Your task to perform on an android device: turn on priority inbox in the gmail app Image 0: 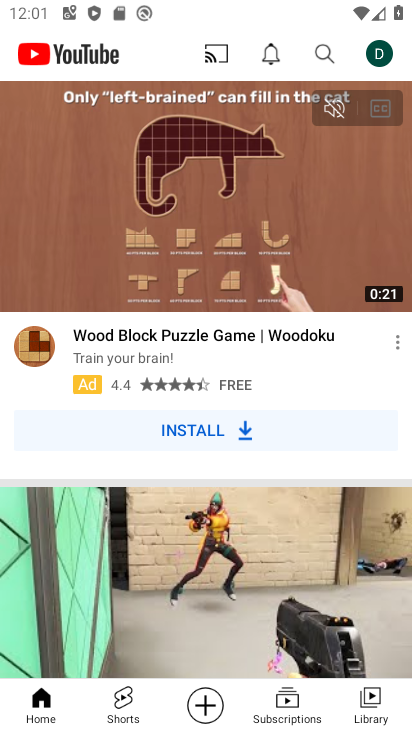
Step 0: press home button
Your task to perform on an android device: turn on priority inbox in the gmail app Image 1: 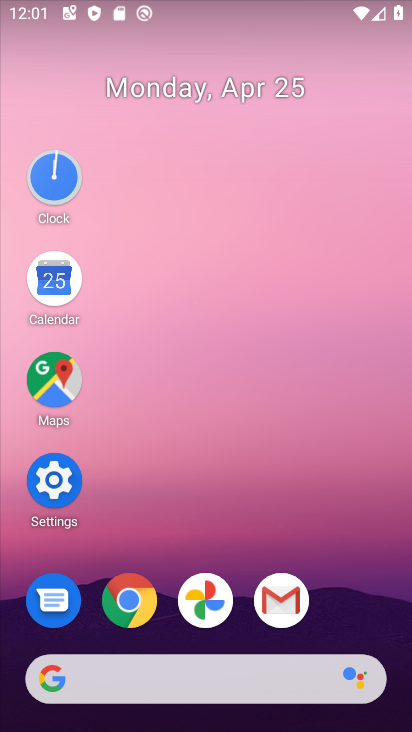
Step 1: click (266, 602)
Your task to perform on an android device: turn on priority inbox in the gmail app Image 2: 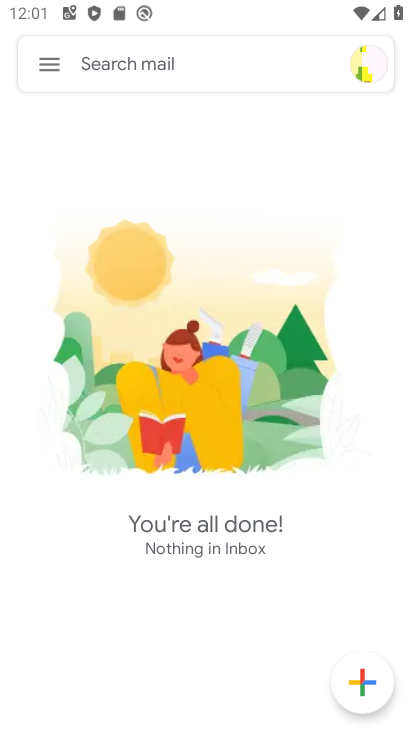
Step 2: click (49, 65)
Your task to perform on an android device: turn on priority inbox in the gmail app Image 3: 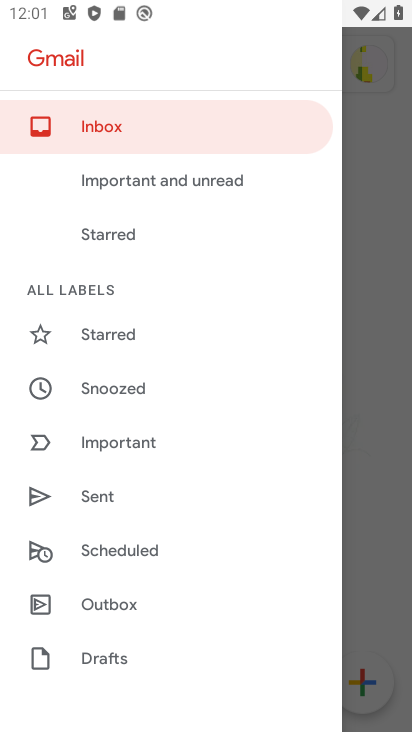
Step 3: drag from (167, 607) to (151, 280)
Your task to perform on an android device: turn on priority inbox in the gmail app Image 4: 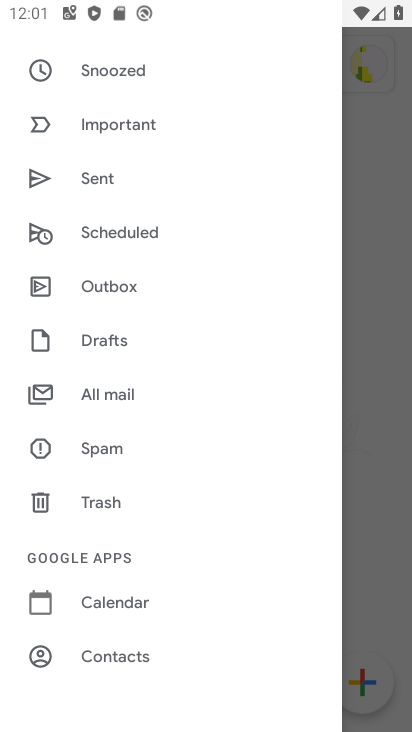
Step 4: drag from (223, 573) to (189, 309)
Your task to perform on an android device: turn on priority inbox in the gmail app Image 5: 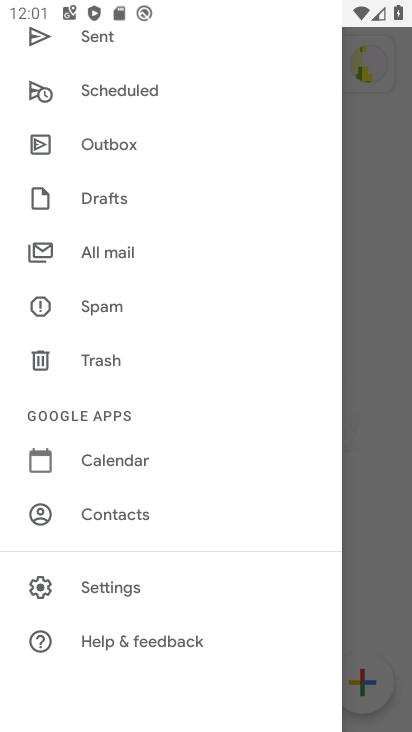
Step 5: click (109, 586)
Your task to perform on an android device: turn on priority inbox in the gmail app Image 6: 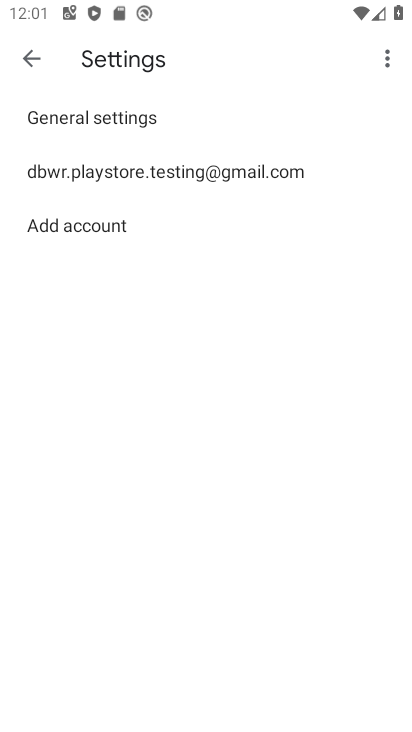
Step 6: click (95, 180)
Your task to perform on an android device: turn on priority inbox in the gmail app Image 7: 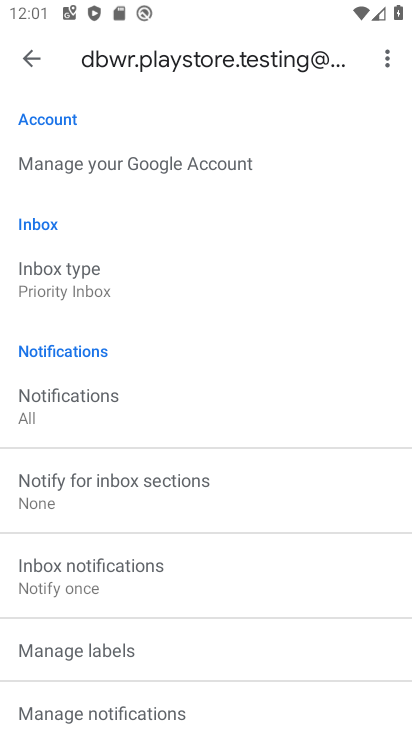
Step 7: click (67, 266)
Your task to perform on an android device: turn on priority inbox in the gmail app Image 8: 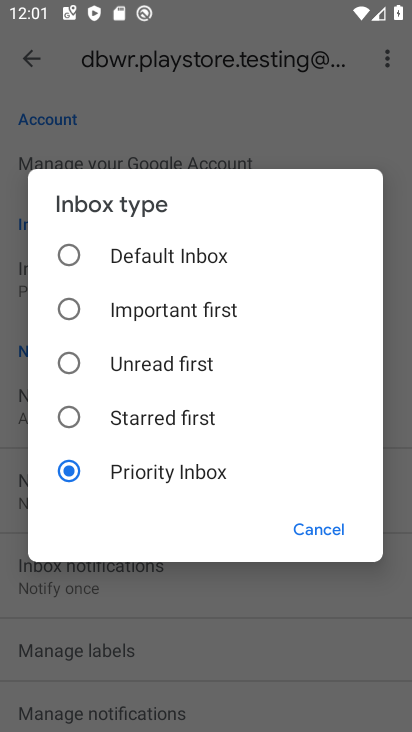
Step 8: click (63, 467)
Your task to perform on an android device: turn on priority inbox in the gmail app Image 9: 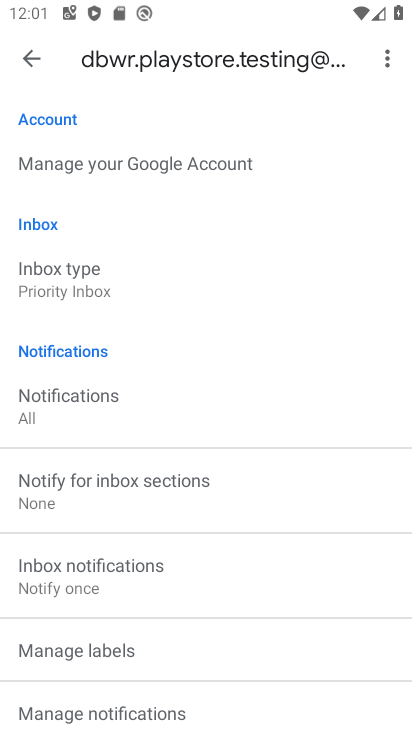
Step 9: task complete